Your task to perform on an android device: open a bookmark in the chrome app Image 0: 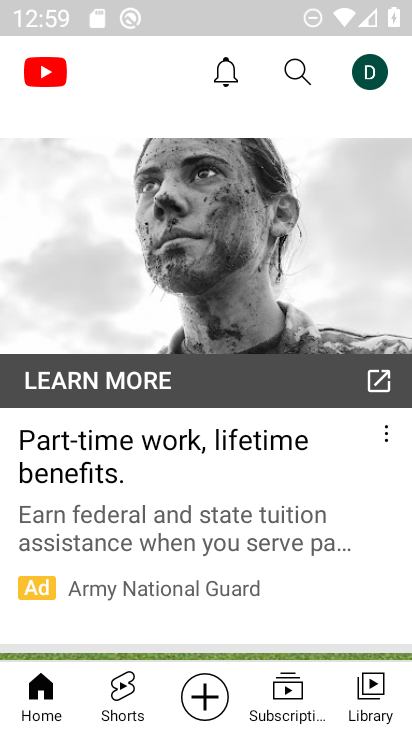
Step 0: press home button
Your task to perform on an android device: open a bookmark in the chrome app Image 1: 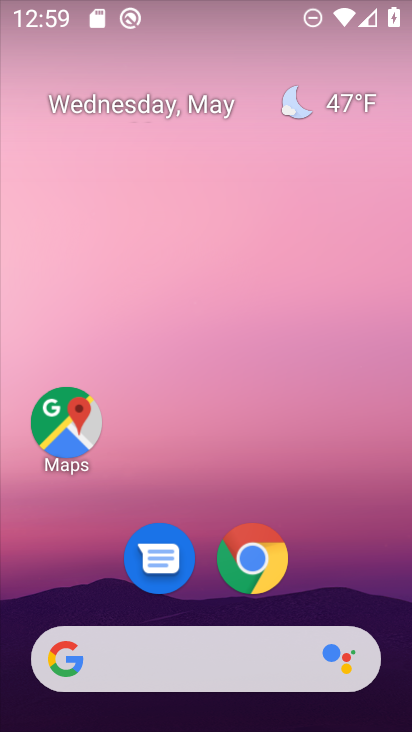
Step 1: click (271, 564)
Your task to perform on an android device: open a bookmark in the chrome app Image 2: 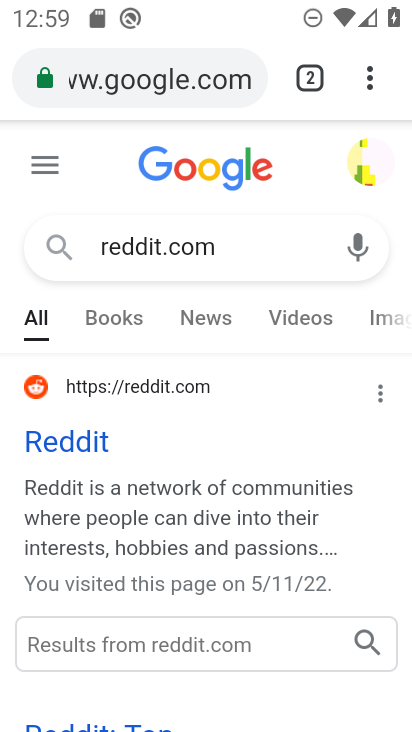
Step 2: click (374, 84)
Your task to perform on an android device: open a bookmark in the chrome app Image 3: 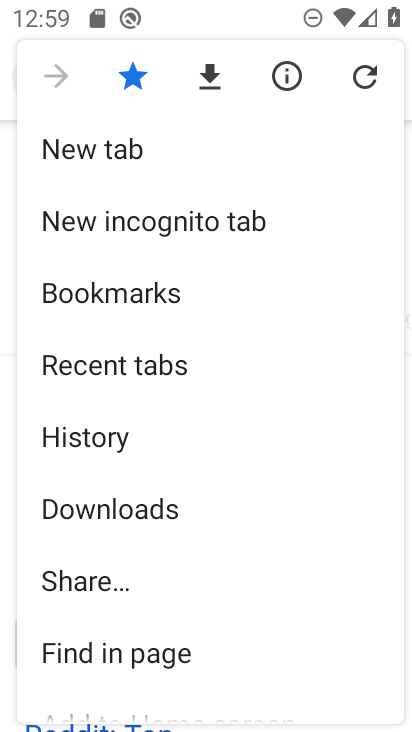
Step 3: click (119, 310)
Your task to perform on an android device: open a bookmark in the chrome app Image 4: 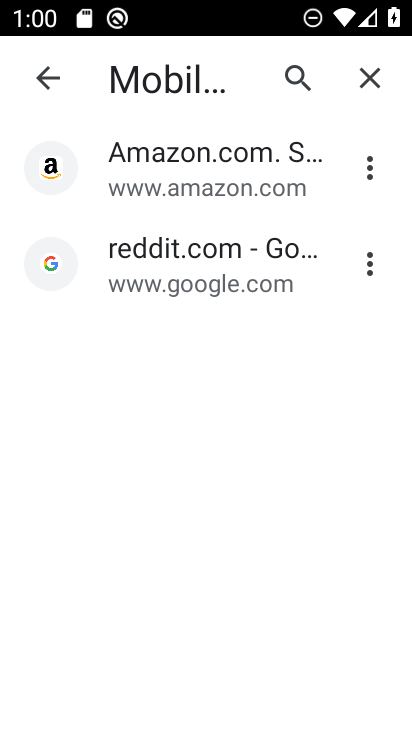
Step 4: click (195, 187)
Your task to perform on an android device: open a bookmark in the chrome app Image 5: 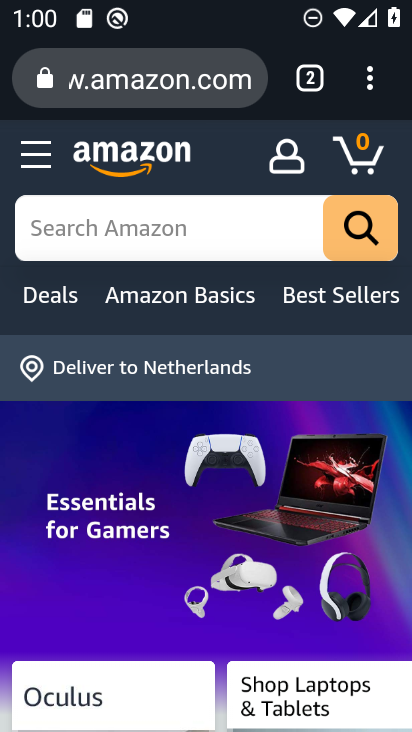
Step 5: task complete